Your task to perform on an android device: View the shopping cart on newegg. Search for "duracell triple a" on newegg, select the first entry, add it to the cart, then select checkout. Image 0: 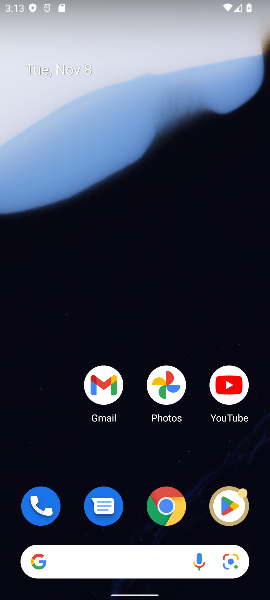
Step 0: drag from (139, 497) to (163, 150)
Your task to perform on an android device: View the shopping cart on newegg. Search for "duracell triple a" on newegg, select the first entry, add it to the cart, then select checkout. Image 1: 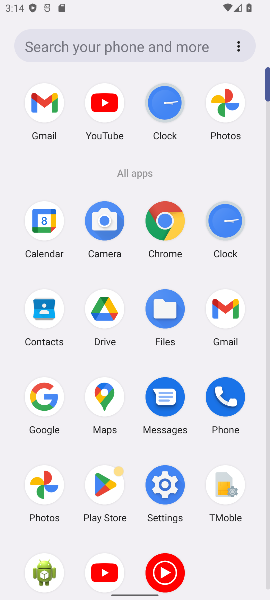
Step 1: click (106, 399)
Your task to perform on an android device: View the shopping cart on newegg. Search for "duracell triple a" on newegg, select the first entry, add it to the cart, then select checkout. Image 2: 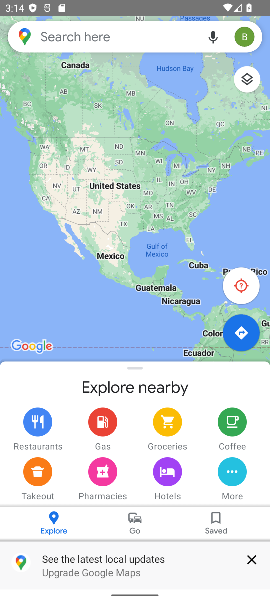
Step 2: press home button
Your task to perform on an android device: View the shopping cart on newegg. Search for "duracell triple a" on newegg, select the first entry, add it to the cart, then select checkout. Image 3: 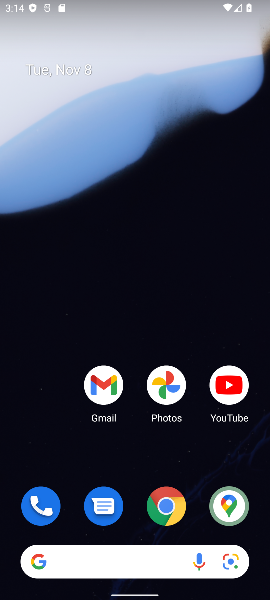
Step 3: click (174, 516)
Your task to perform on an android device: View the shopping cart on newegg. Search for "duracell triple a" on newegg, select the first entry, add it to the cart, then select checkout. Image 4: 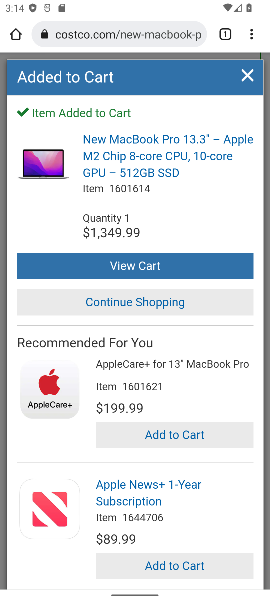
Step 4: click (167, 42)
Your task to perform on an android device: View the shopping cart on newegg. Search for "duracell triple a" on newegg, select the first entry, add it to the cart, then select checkout. Image 5: 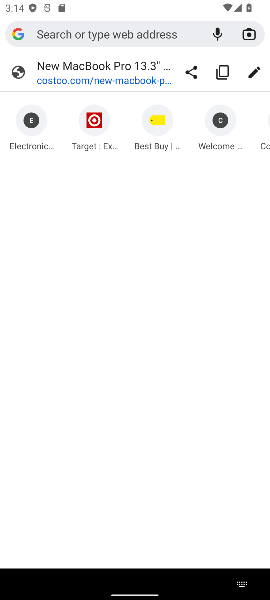
Step 5: type "newegg"
Your task to perform on an android device: View the shopping cart on newegg. Search for "duracell triple a" on newegg, select the first entry, add it to the cart, then select checkout. Image 6: 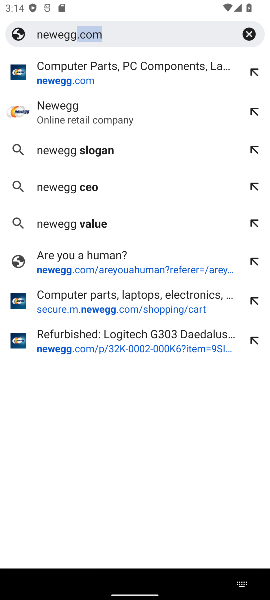
Step 6: click (116, 75)
Your task to perform on an android device: View the shopping cart on newegg. Search for "duracell triple a" on newegg, select the first entry, add it to the cart, then select checkout. Image 7: 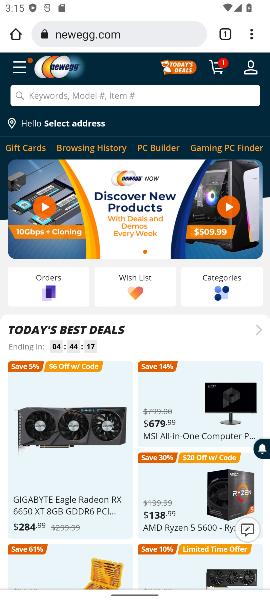
Step 7: click (133, 101)
Your task to perform on an android device: View the shopping cart on newegg. Search for "duracell triple a" on newegg, select the first entry, add it to the cart, then select checkout. Image 8: 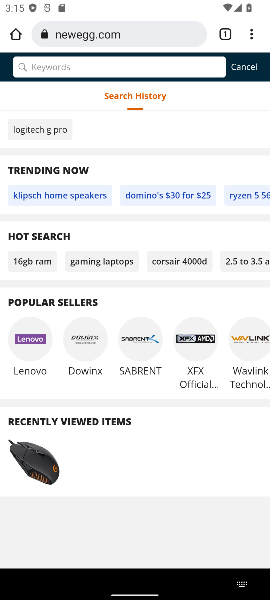
Step 8: type "duracell triple"
Your task to perform on an android device: View the shopping cart on newegg. Search for "duracell triple a" on newegg, select the first entry, add it to the cart, then select checkout. Image 9: 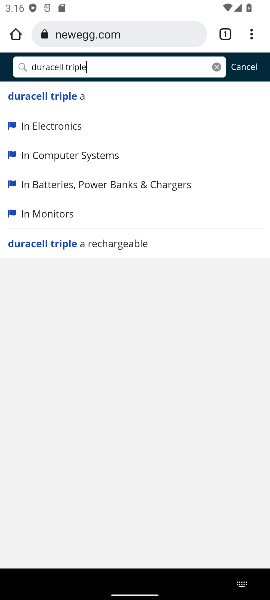
Step 9: click (72, 99)
Your task to perform on an android device: View the shopping cart on newegg. Search for "duracell triple a" on newegg, select the first entry, add it to the cart, then select checkout. Image 10: 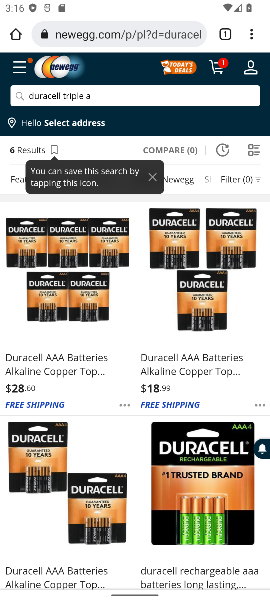
Step 10: click (48, 318)
Your task to perform on an android device: View the shopping cart on newegg. Search for "duracell triple a" on newegg, select the first entry, add it to the cart, then select checkout. Image 11: 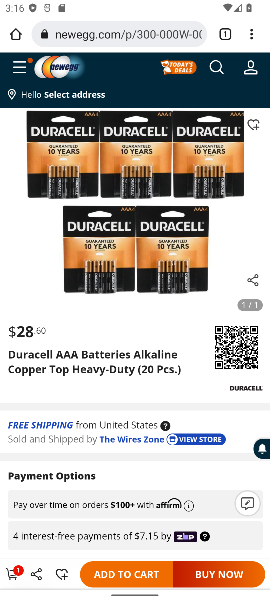
Step 11: click (137, 582)
Your task to perform on an android device: View the shopping cart on newegg. Search for "duracell triple a" on newegg, select the first entry, add it to the cart, then select checkout. Image 12: 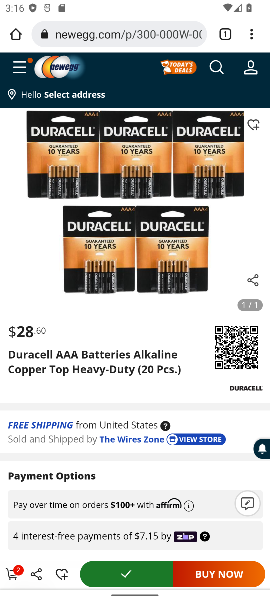
Step 12: click (14, 572)
Your task to perform on an android device: View the shopping cart on newegg. Search for "duracell triple a" on newegg, select the first entry, add it to the cart, then select checkout. Image 13: 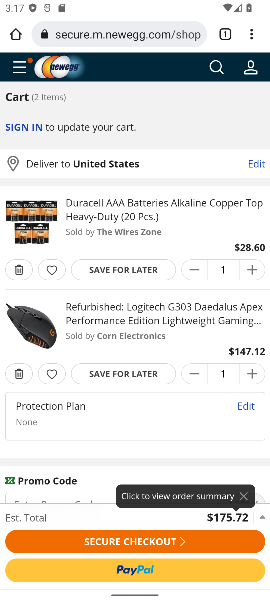
Step 13: drag from (134, 567) to (139, 411)
Your task to perform on an android device: View the shopping cart on newegg. Search for "duracell triple a" on newegg, select the first entry, add it to the cart, then select checkout. Image 14: 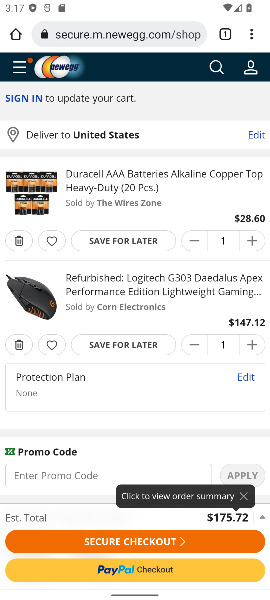
Step 14: click (143, 546)
Your task to perform on an android device: View the shopping cart on newegg. Search for "duracell triple a" on newegg, select the first entry, add it to the cart, then select checkout. Image 15: 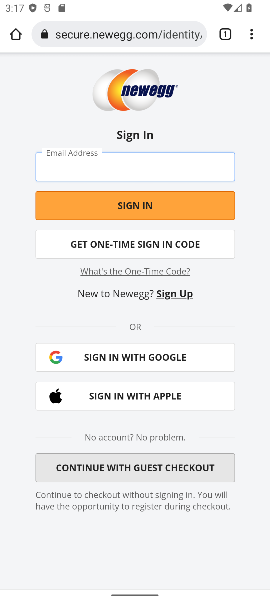
Step 15: task complete